Your task to perform on an android device: Open Google Maps and go to "Timeline" Image 0: 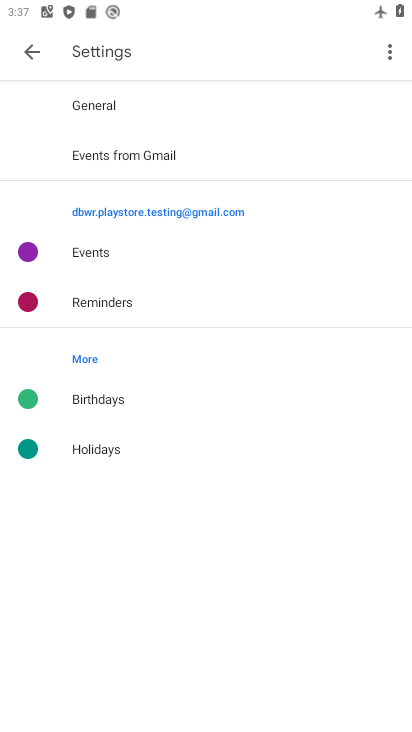
Step 0: press home button
Your task to perform on an android device: Open Google Maps and go to "Timeline" Image 1: 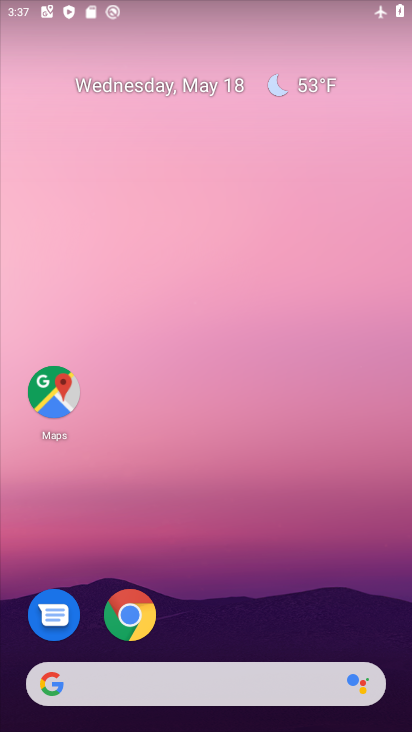
Step 1: drag from (257, 478) to (251, 109)
Your task to perform on an android device: Open Google Maps and go to "Timeline" Image 2: 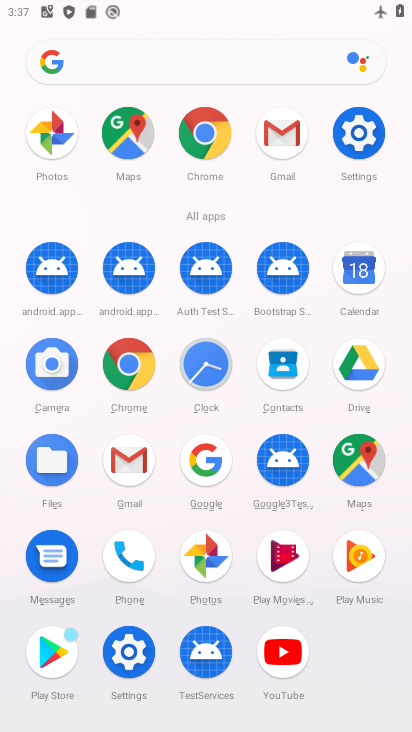
Step 2: click (131, 136)
Your task to perform on an android device: Open Google Maps and go to "Timeline" Image 3: 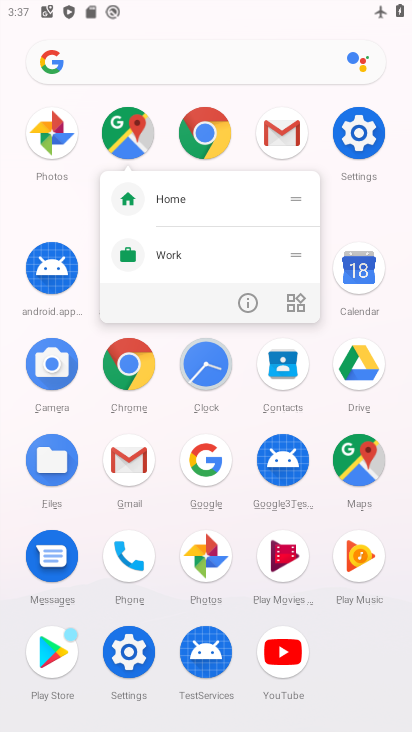
Step 3: click (112, 125)
Your task to perform on an android device: Open Google Maps and go to "Timeline" Image 4: 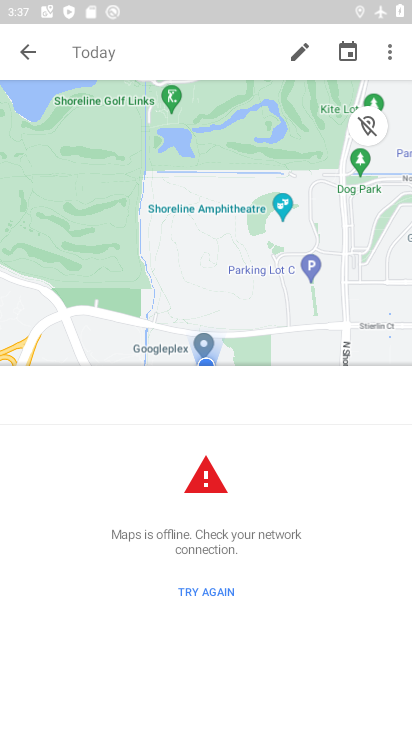
Step 4: task complete